Your task to perform on an android device: Open the web browser Image 0: 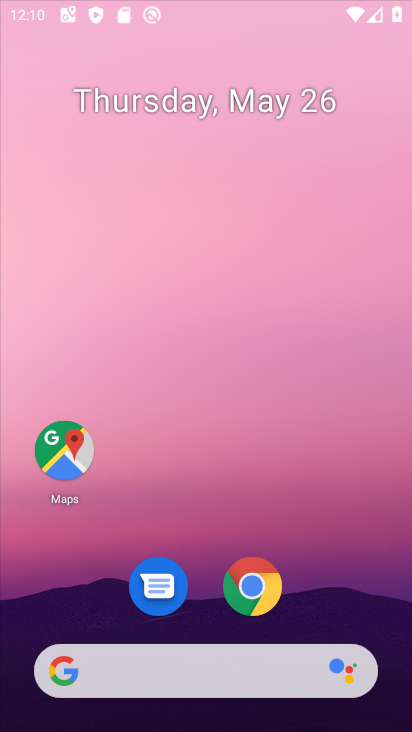
Step 0: press home button
Your task to perform on an android device: Open the web browser Image 1: 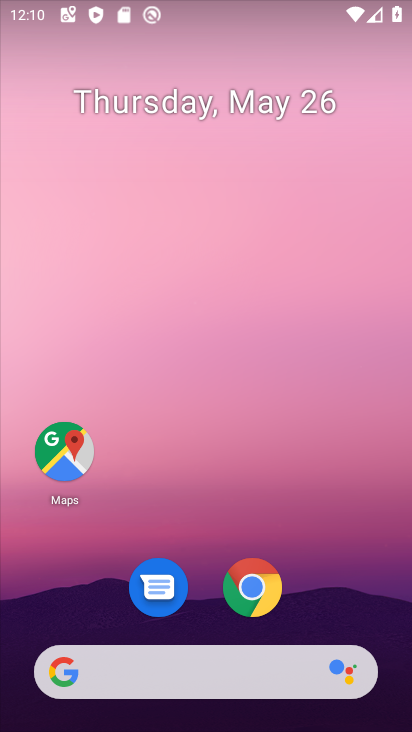
Step 1: drag from (212, 627) to (0, 206)
Your task to perform on an android device: Open the web browser Image 2: 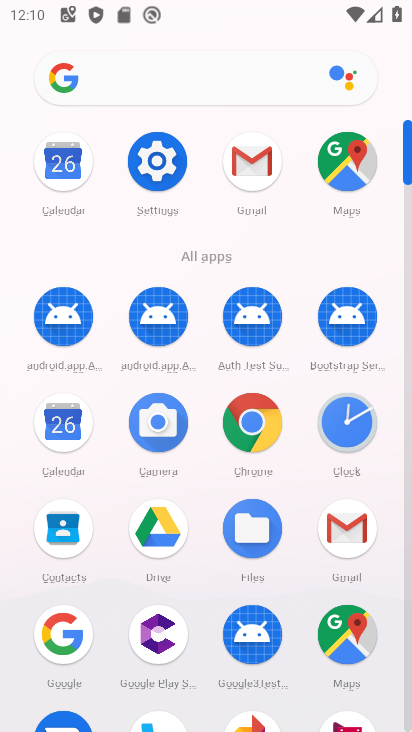
Step 2: click (251, 416)
Your task to perform on an android device: Open the web browser Image 3: 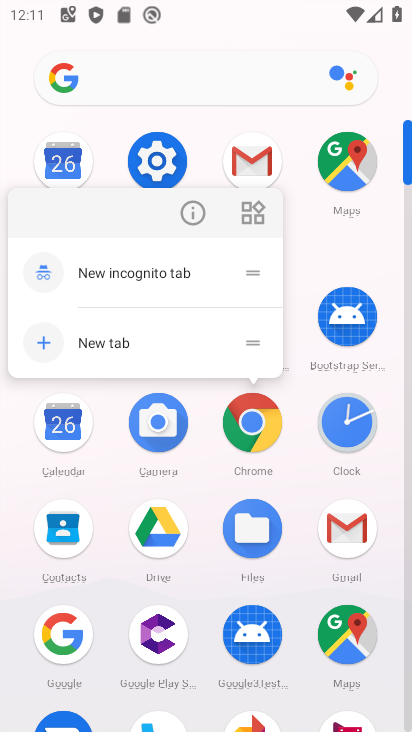
Step 3: click (247, 415)
Your task to perform on an android device: Open the web browser Image 4: 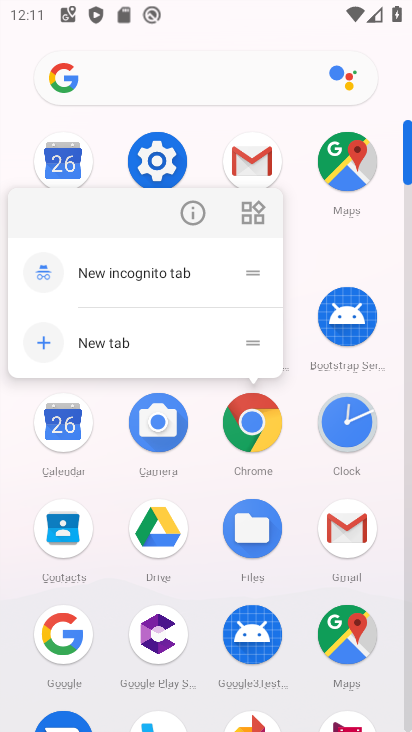
Step 4: click (247, 415)
Your task to perform on an android device: Open the web browser Image 5: 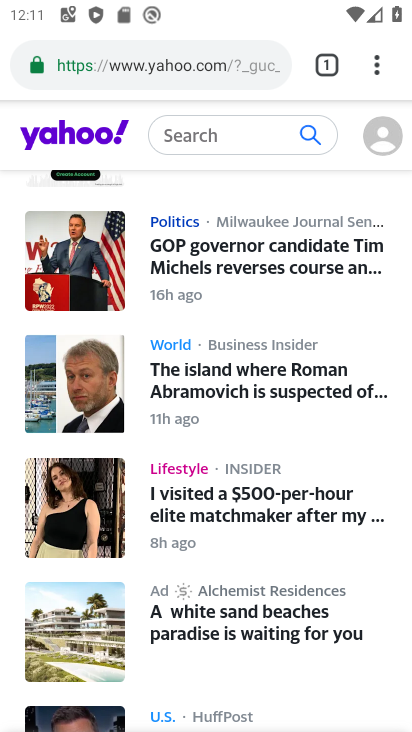
Step 5: drag from (138, 664) to (160, 300)
Your task to perform on an android device: Open the web browser Image 6: 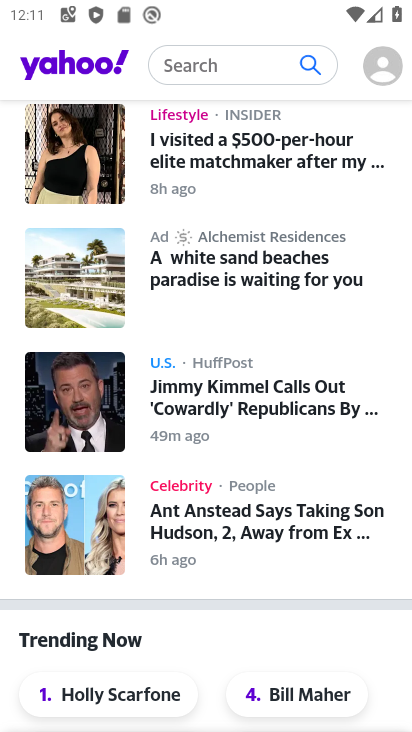
Step 6: drag from (317, 160) to (333, 677)
Your task to perform on an android device: Open the web browser Image 7: 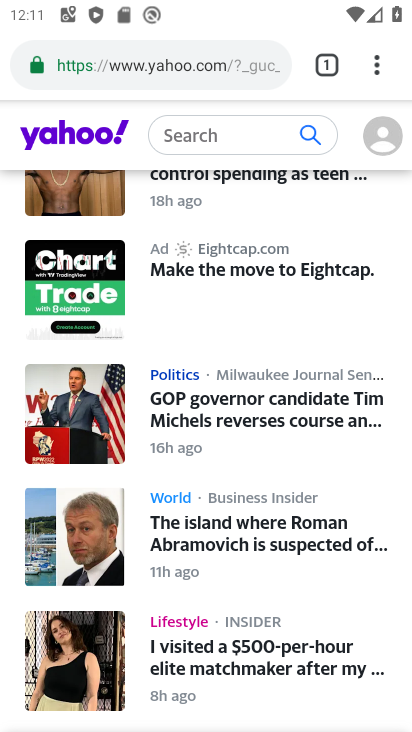
Step 7: click (328, 62)
Your task to perform on an android device: Open the web browser Image 8: 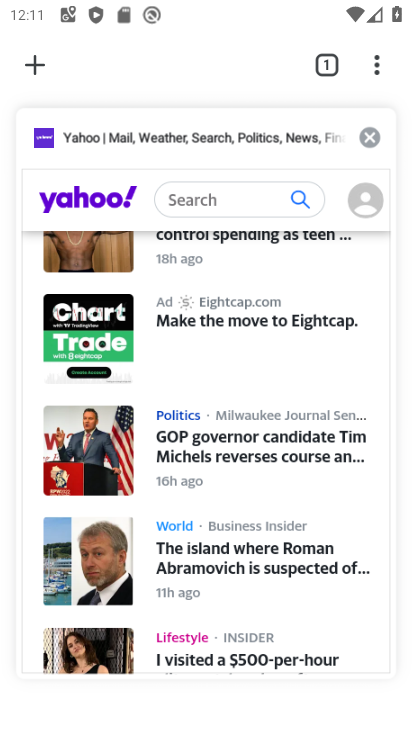
Step 8: click (366, 131)
Your task to perform on an android device: Open the web browser Image 9: 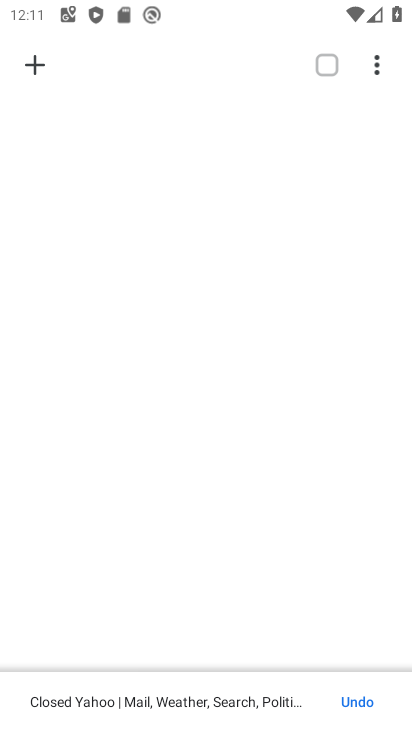
Step 9: click (37, 64)
Your task to perform on an android device: Open the web browser Image 10: 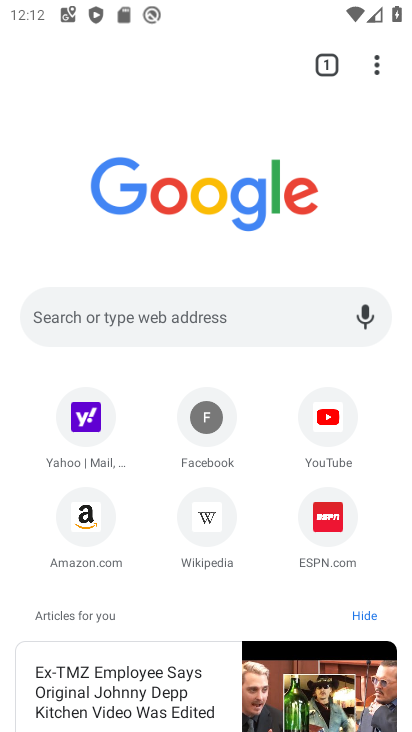
Step 10: task complete